Your task to perform on an android device: Go to Google Image 0: 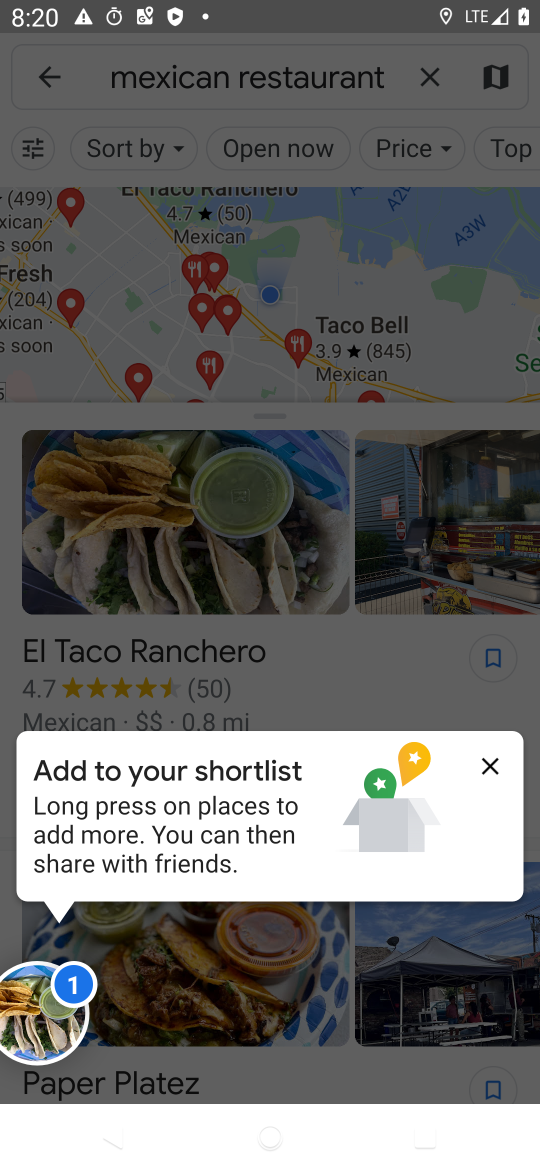
Step 0: press home button
Your task to perform on an android device: Go to Google Image 1: 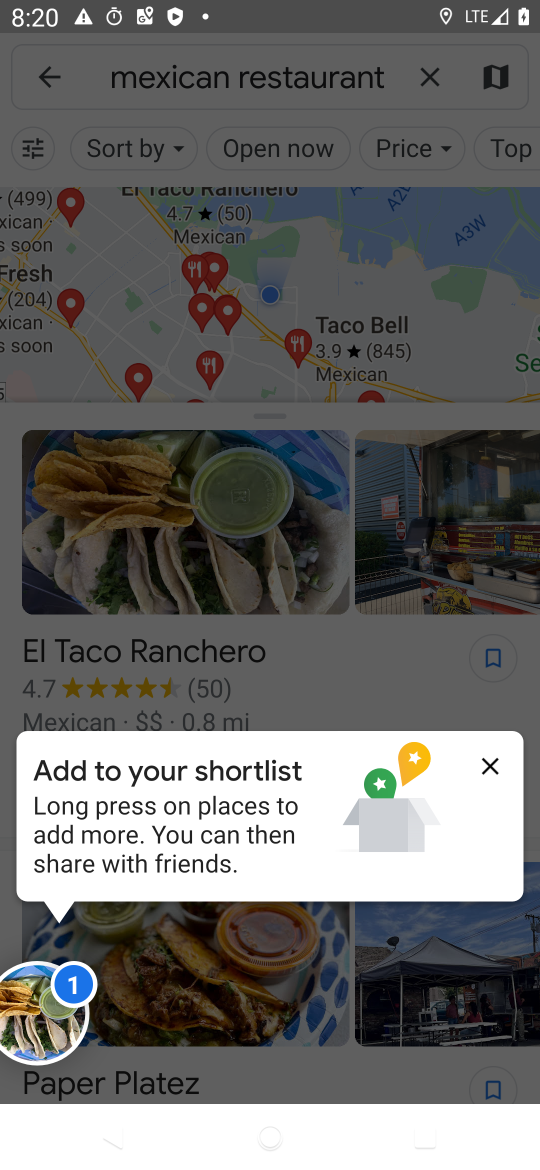
Step 1: press home button
Your task to perform on an android device: Go to Google Image 2: 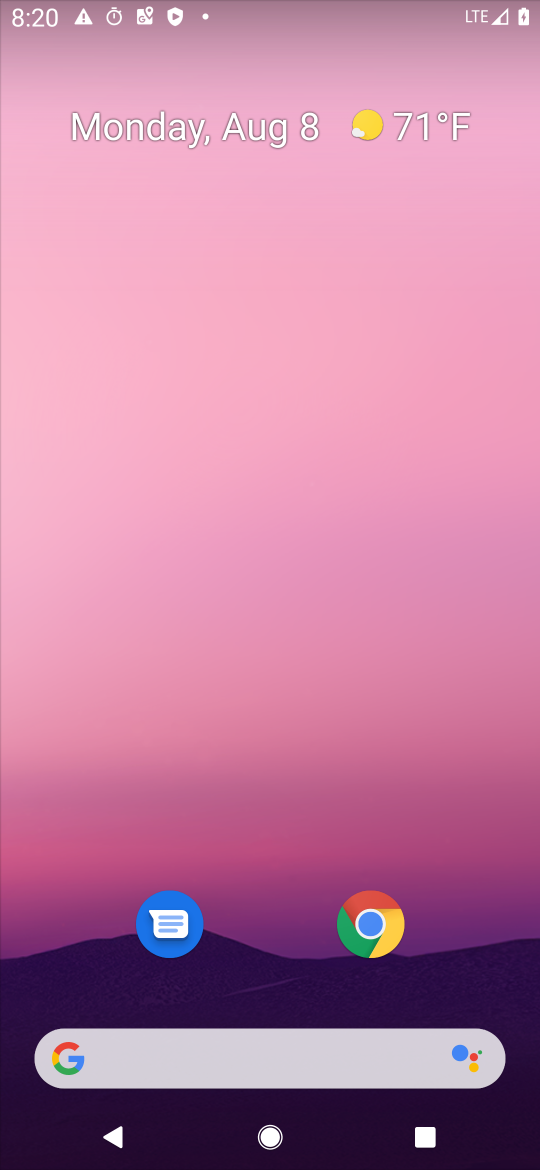
Step 2: drag from (278, 968) to (379, 432)
Your task to perform on an android device: Go to Google Image 3: 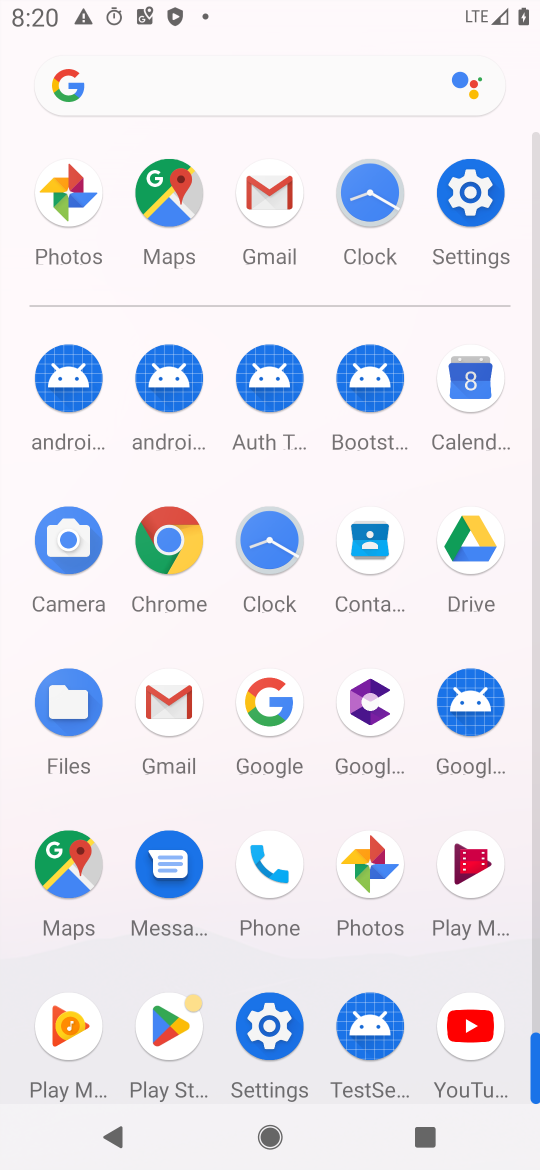
Step 3: click (289, 700)
Your task to perform on an android device: Go to Google Image 4: 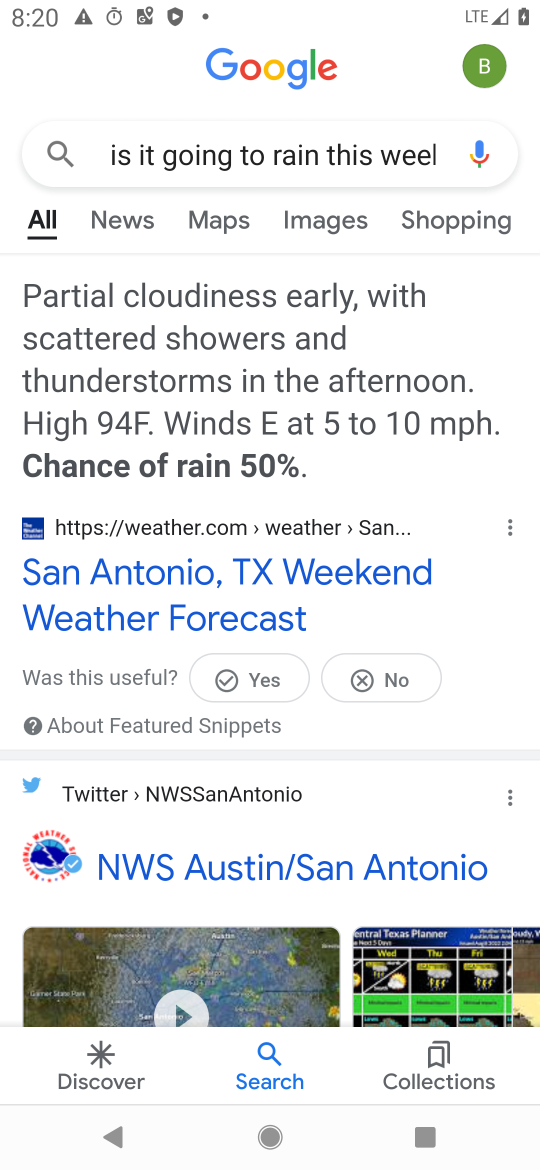
Step 4: task complete